Your task to perform on an android device: all mails in gmail Image 0: 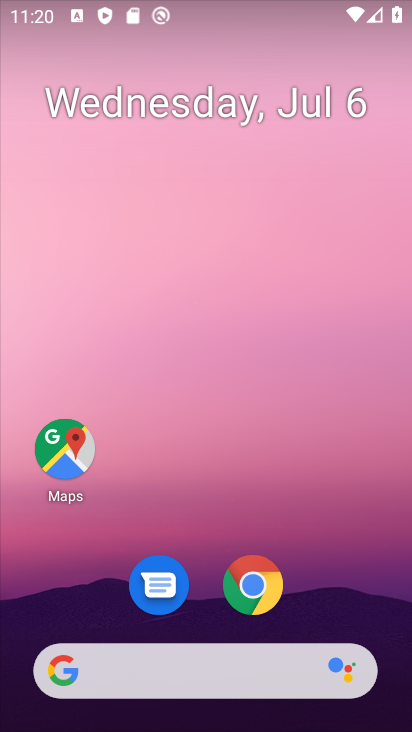
Step 0: drag from (227, 501) to (211, 28)
Your task to perform on an android device: all mails in gmail Image 1: 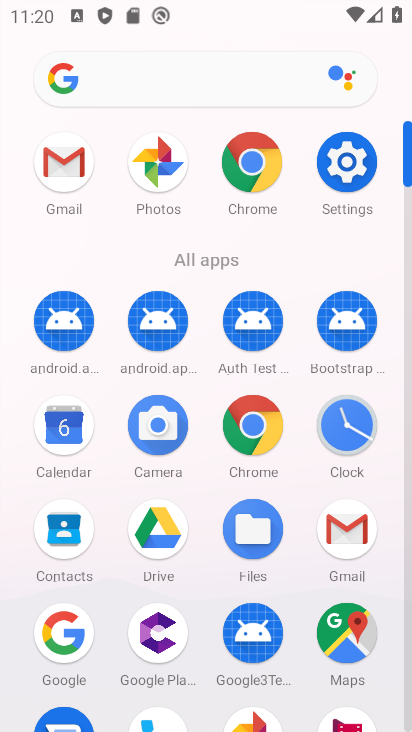
Step 1: click (68, 165)
Your task to perform on an android device: all mails in gmail Image 2: 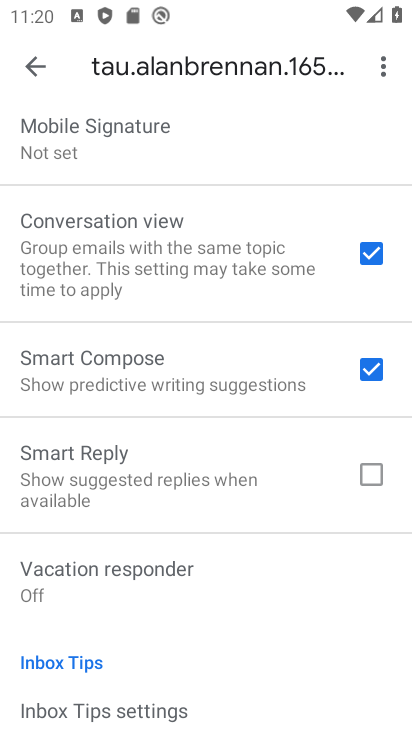
Step 2: click (36, 63)
Your task to perform on an android device: all mails in gmail Image 3: 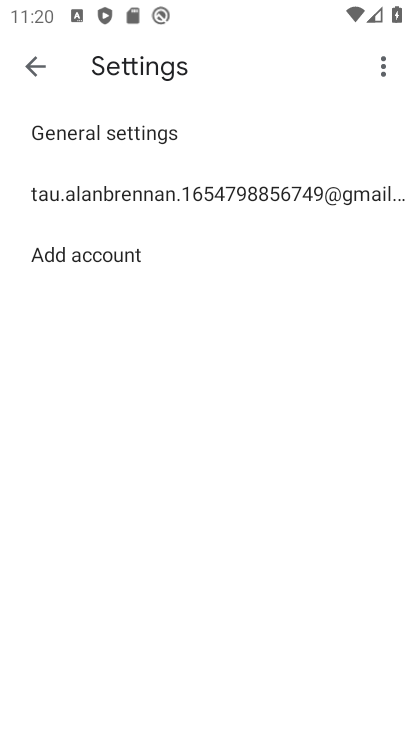
Step 3: click (36, 68)
Your task to perform on an android device: all mails in gmail Image 4: 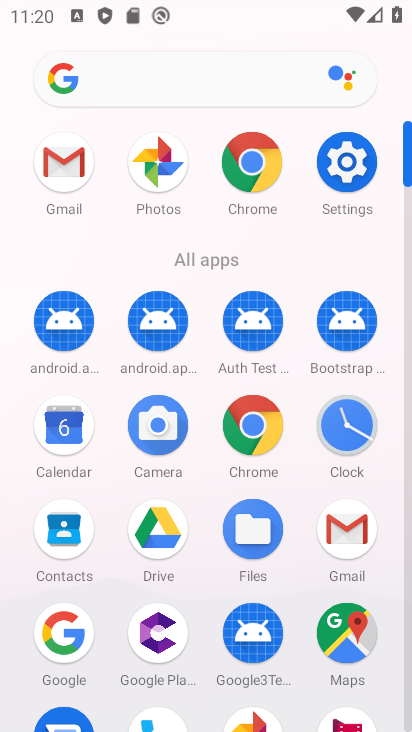
Step 4: click (62, 162)
Your task to perform on an android device: all mails in gmail Image 5: 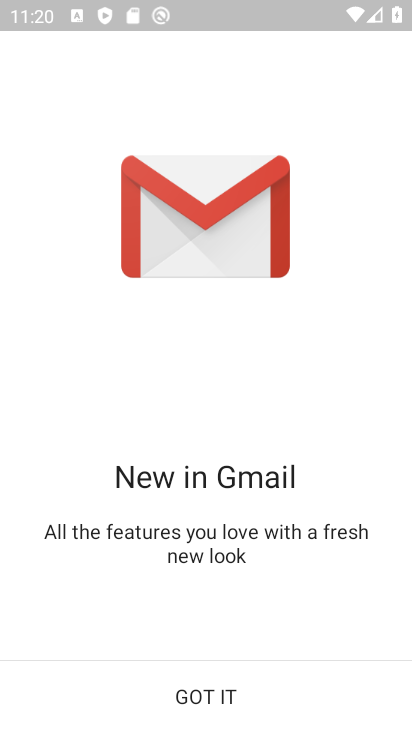
Step 5: click (222, 691)
Your task to perform on an android device: all mails in gmail Image 6: 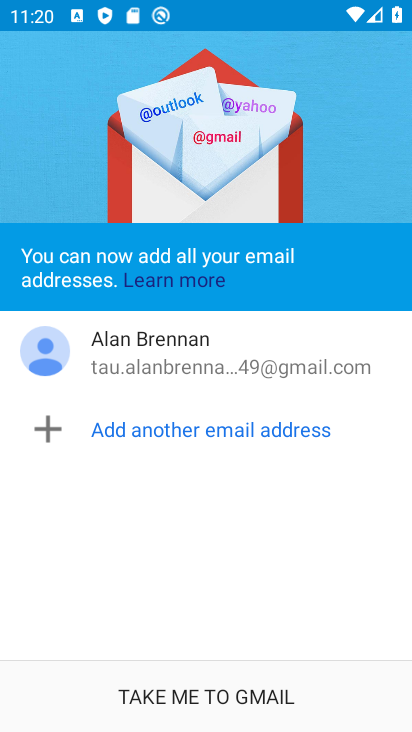
Step 6: click (222, 691)
Your task to perform on an android device: all mails in gmail Image 7: 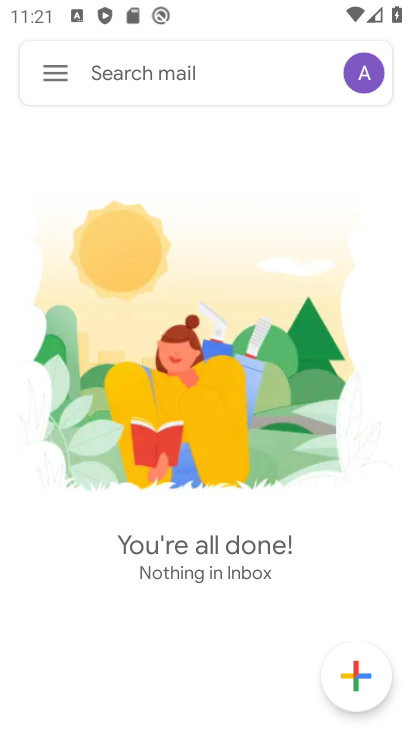
Step 7: click (56, 72)
Your task to perform on an android device: all mails in gmail Image 8: 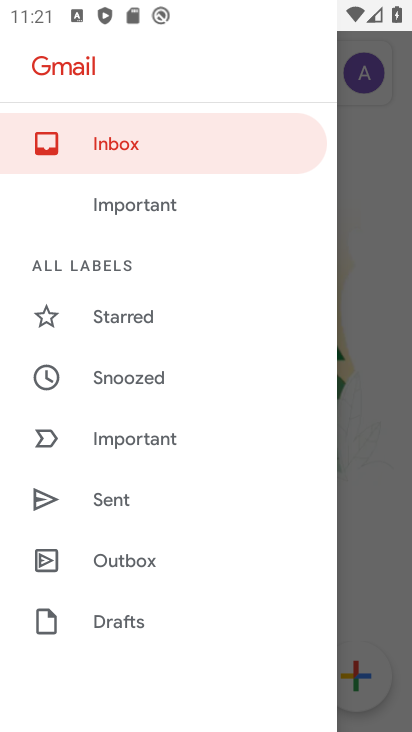
Step 8: drag from (163, 465) to (175, 184)
Your task to perform on an android device: all mails in gmail Image 9: 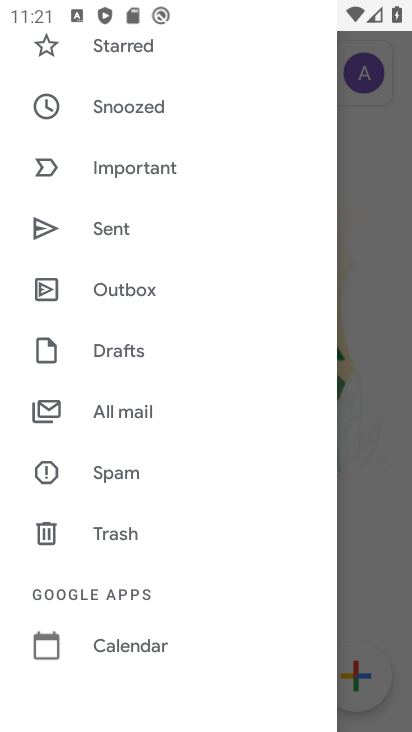
Step 9: click (133, 411)
Your task to perform on an android device: all mails in gmail Image 10: 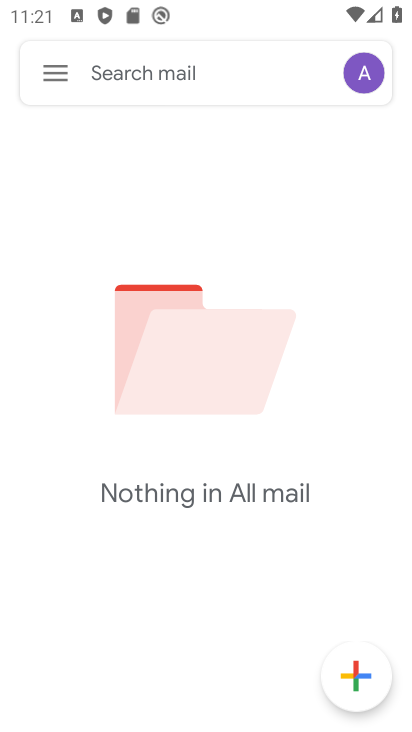
Step 10: task complete